Your task to perform on an android device: delete the emails in spam in the gmail app Image 0: 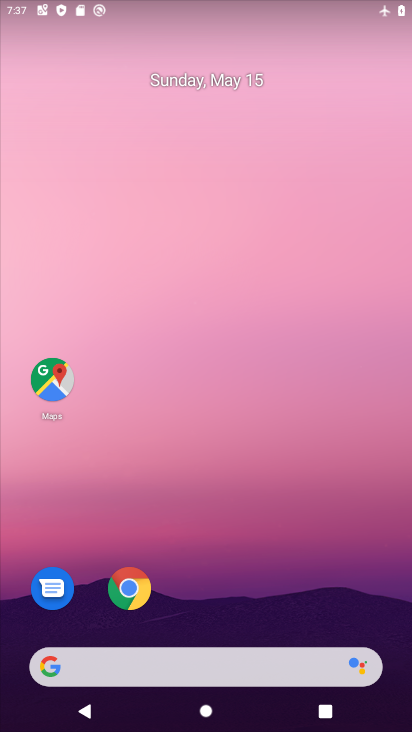
Step 0: drag from (304, 626) to (265, 84)
Your task to perform on an android device: delete the emails in spam in the gmail app Image 1: 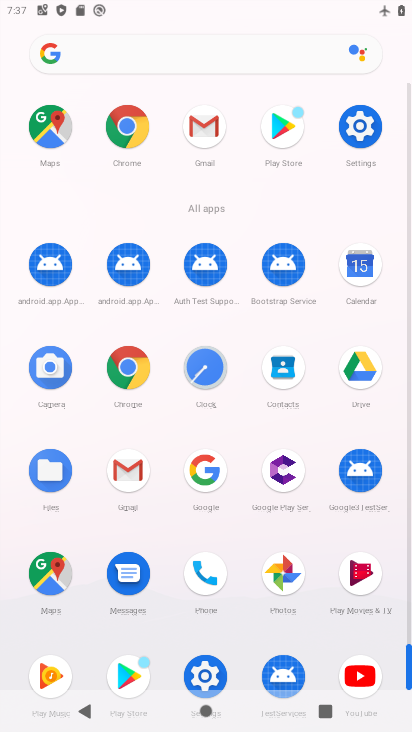
Step 1: click (145, 476)
Your task to perform on an android device: delete the emails in spam in the gmail app Image 2: 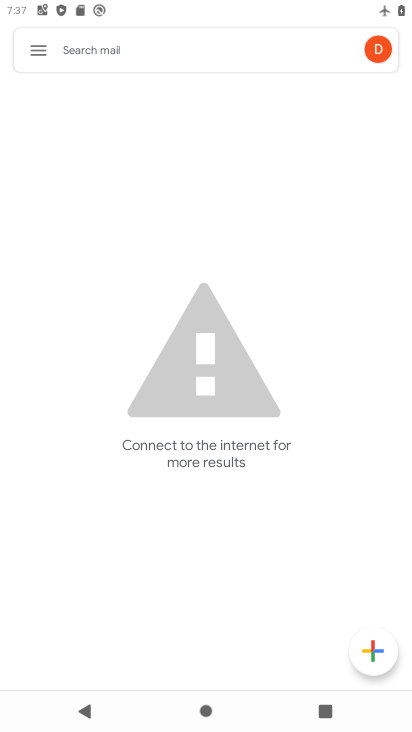
Step 2: click (31, 55)
Your task to perform on an android device: delete the emails in spam in the gmail app Image 3: 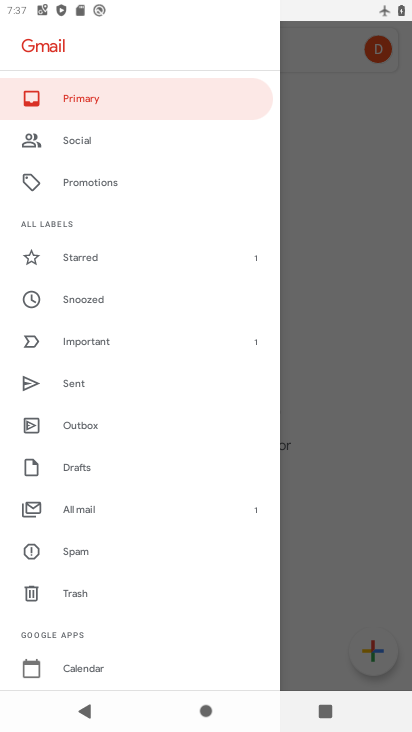
Step 3: click (92, 551)
Your task to perform on an android device: delete the emails in spam in the gmail app Image 4: 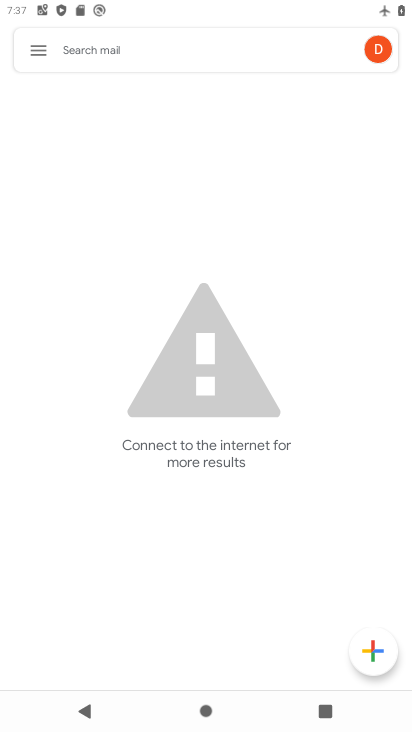
Step 4: task complete